Your task to perform on an android device: Open the Play Movies app and select the watchlist tab. Image 0: 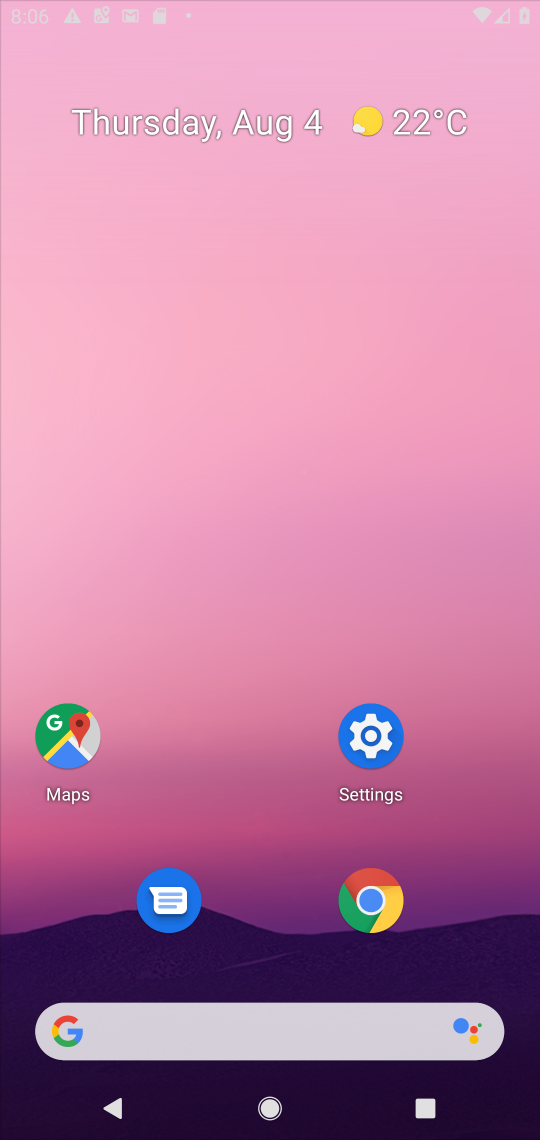
Step 0: press home button
Your task to perform on an android device: Open the Play Movies app and select the watchlist tab. Image 1: 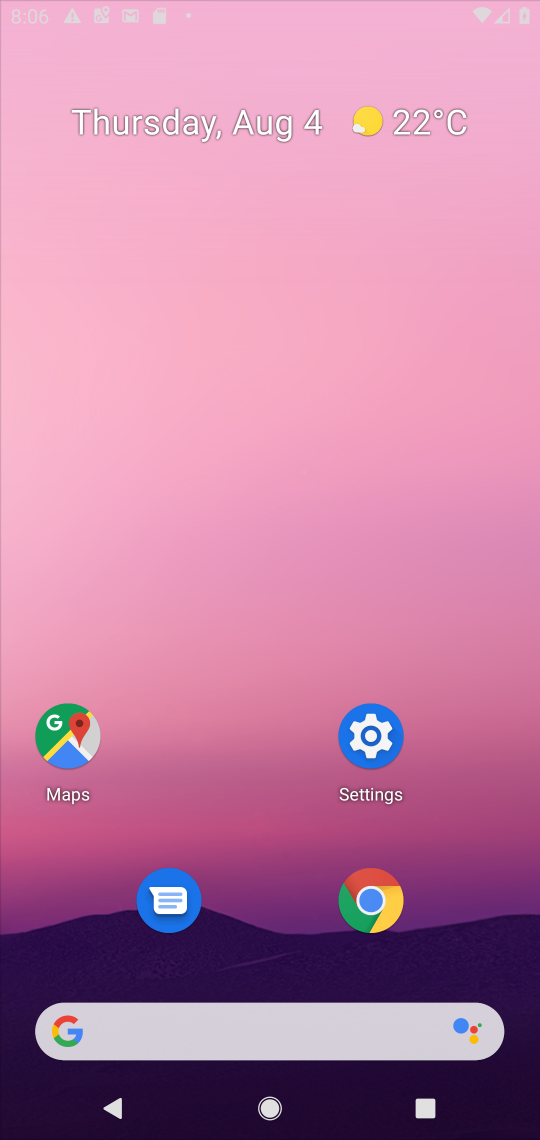
Step 1: click (464, 75)
Your task to perform on an android device: Open the Play Movies app and select the watchlist tab. Image 2: 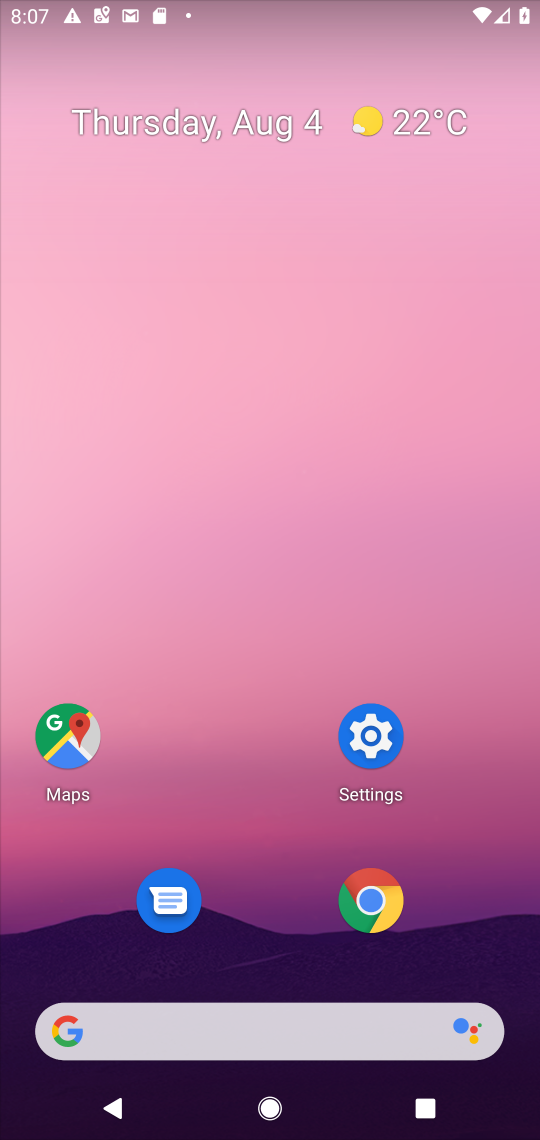
Step 2: drag from (211, 1041) to (429, 175)
Your task to perform on an android device: Open the Play Movies app and select the watchlist tab. Image 3: 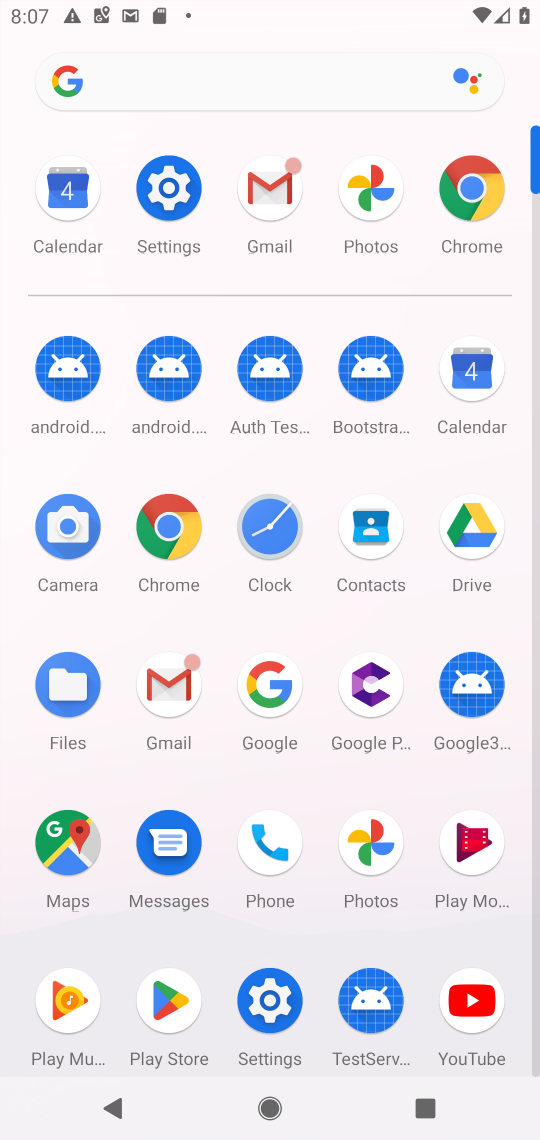
Step 3: click (470, 855)
Your task to perform on an android device: Open the Play Movies app and select the watchlist tab. Image 4: 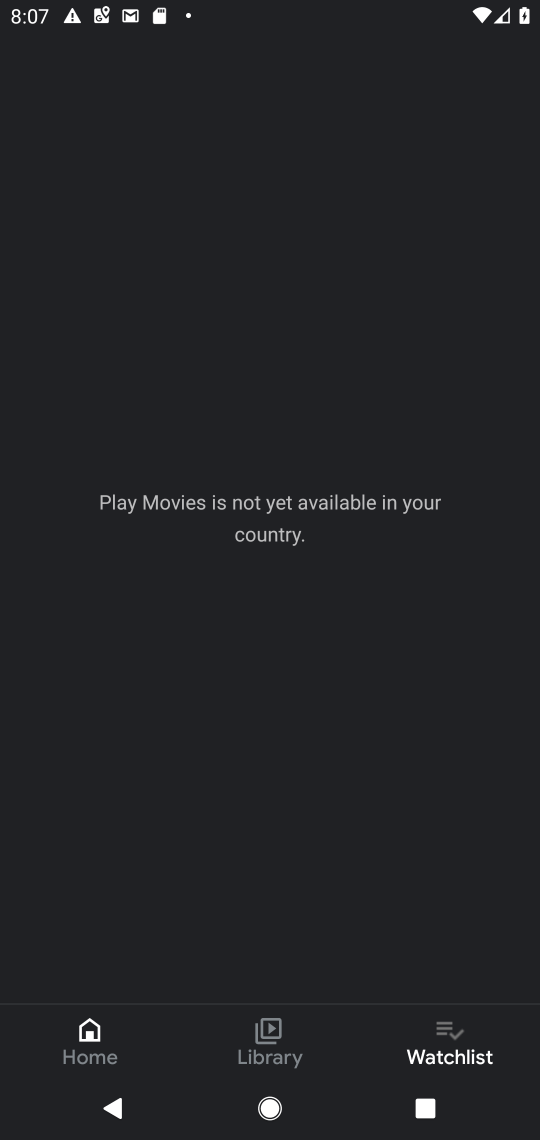
Step 4: task complete